Your task to perform on an android device: Search for seafood restaurants on Google Maps Image 0: 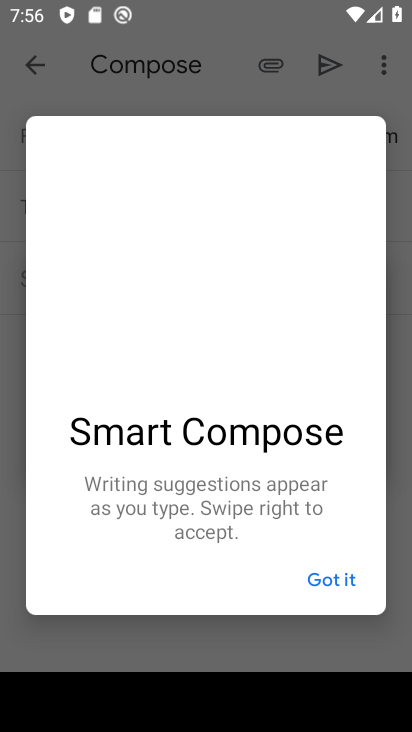
Step 0: press home button
Your task to perform on an android device: Search for seafood restaurants on Google Maps Image 1: 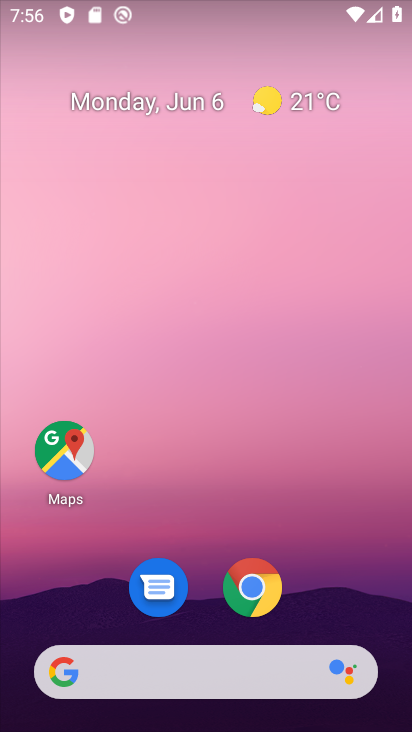
Step 1: click (53, 455)
Your task to perform on an android device: Search for seafood restaurants on Google Maps Image 2: 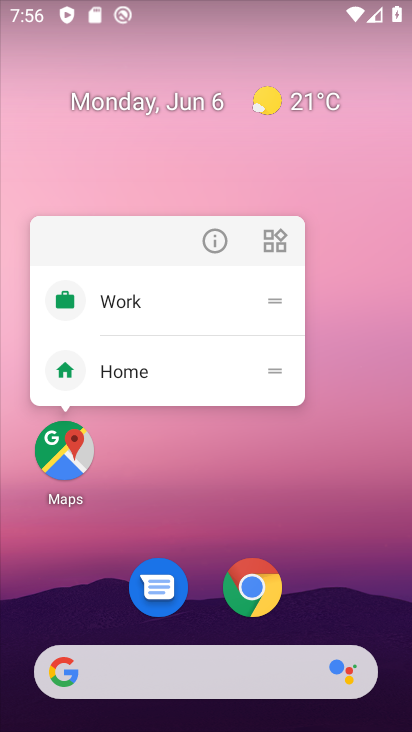
Step 2: click (52, 456)
Your task to perform on an android device: Search for seafood restaurants on Google Maps Image 3: 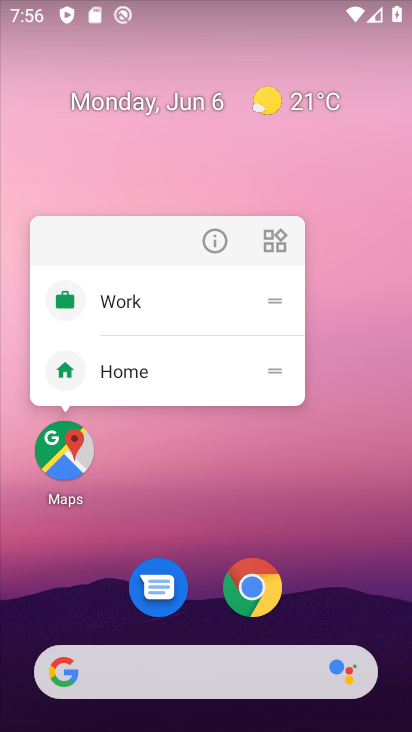
Step 3: click (52, 456)
Your task to perform on an android device: Search for seafood restaurants on Google Maps Image 4: 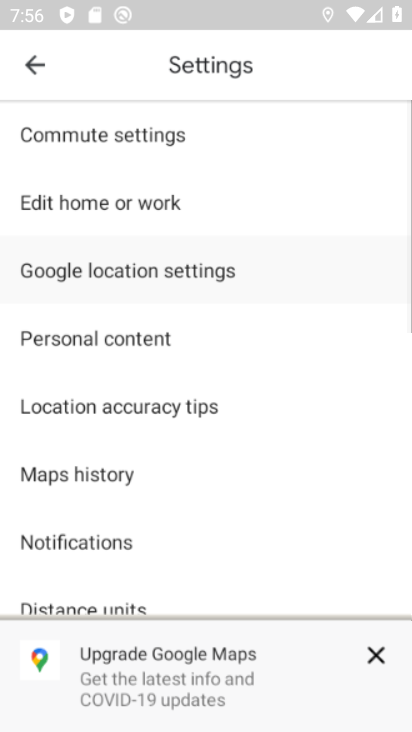
Step 4: click (36, 63)
Your task to perform on an android device: Search for seafood restaurants on Google Maps Image 5: 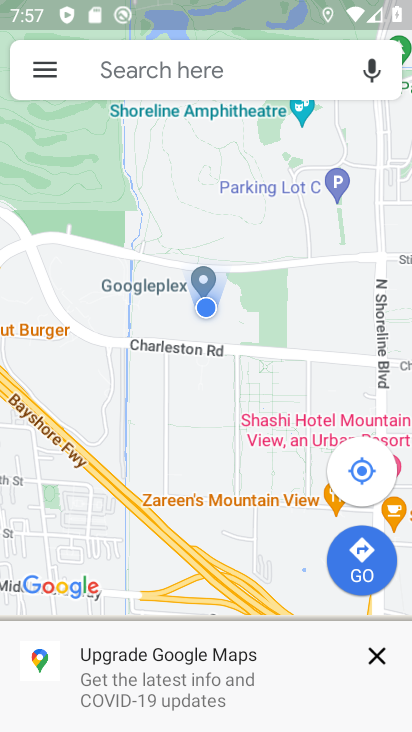
Step 5: click (132, 65)
Your task to perform on an android device: Search for seafood restaurants on Google Maps Image 6: 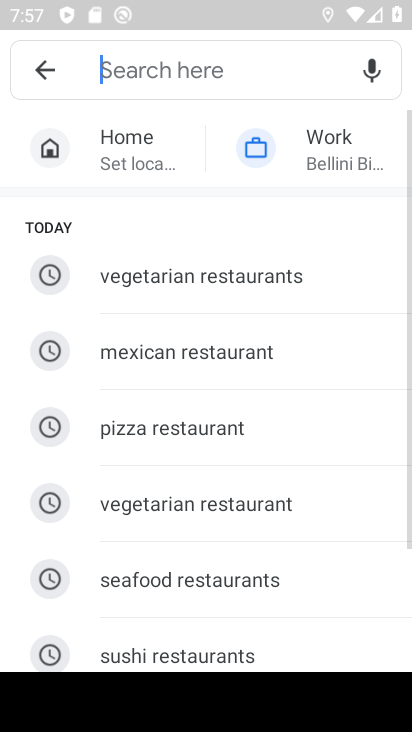
Step 6: click (154, 591)
Your task to perform on an android device: Search for seafood restaurants on Google Maps Image 7: 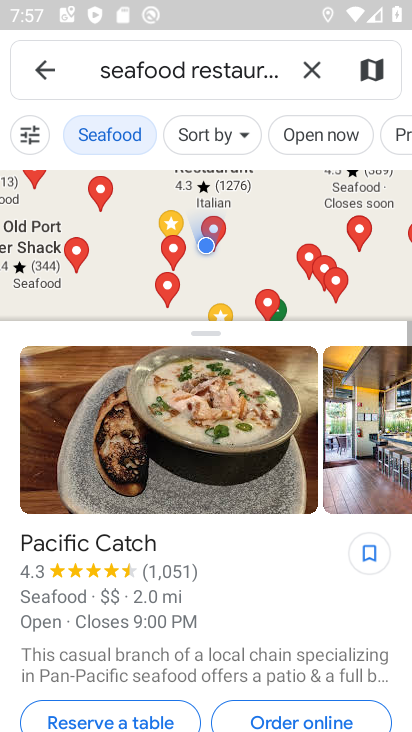
Step 7: task complete